Your task to perform on an android device: see sites visited before in the chrome app Image 0: 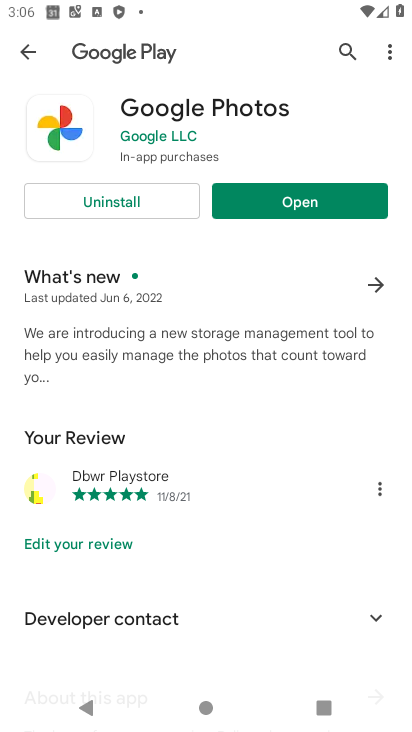
Step 0: press home button
Your task to perform on an android device: see sites visited before in the chrome app Image 1: 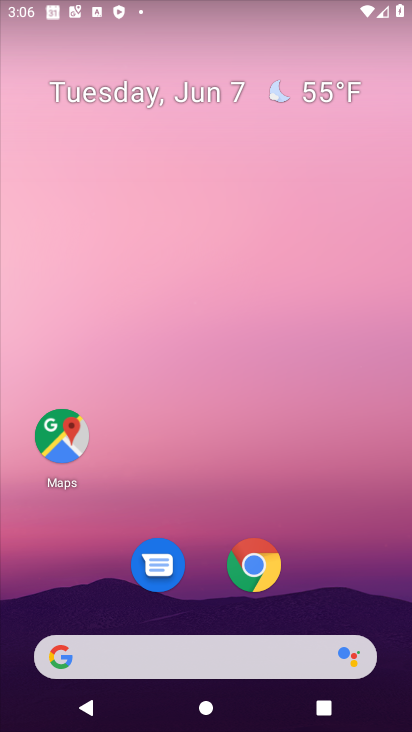
Step 1: drag from (271, 662) to (325, 189)
Your task to perform on an android device: see sites visited before in the chrome app Image 2: 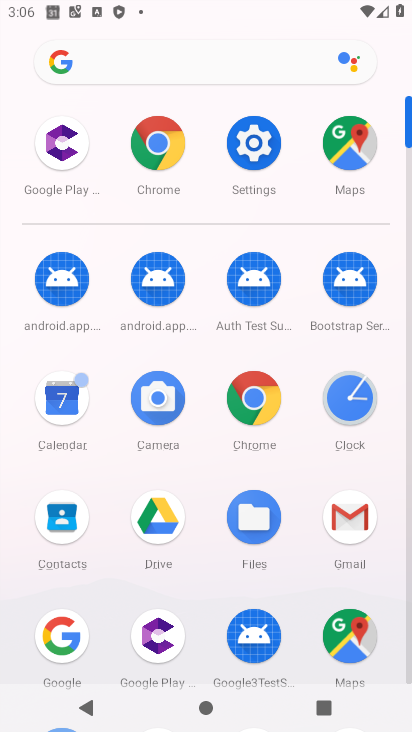
Step 2: click (265, 410)
Your task to perform on an android device: see sites visited before in the chrome app Image 3: 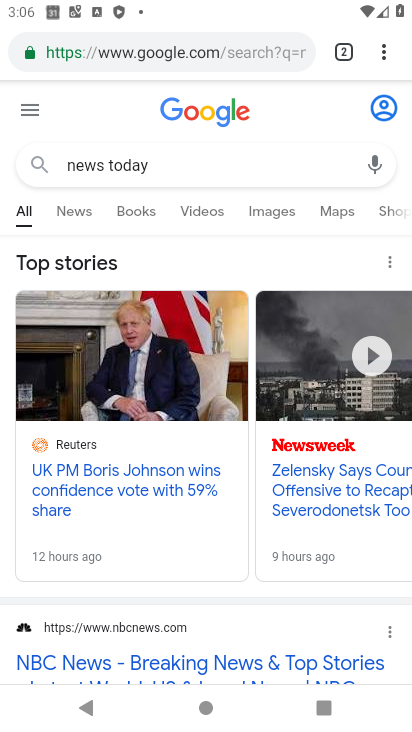
Step 3: task complete